Your task to perform on an android device: Open Google Chrome Image 0: 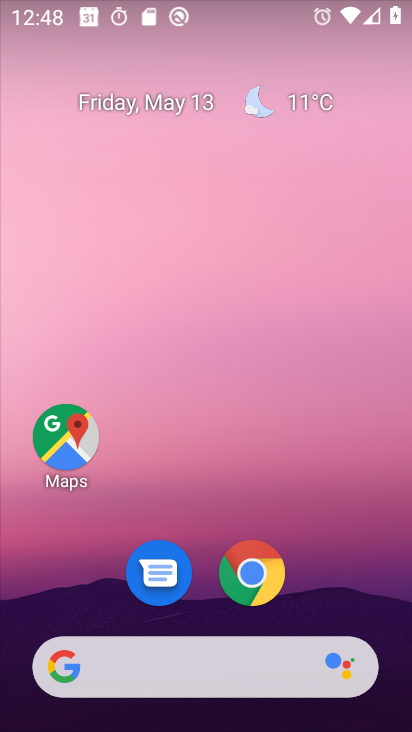
Step 0: click (258, 574)
Your task to perform on an android device: Open Google Chrome Image 1: 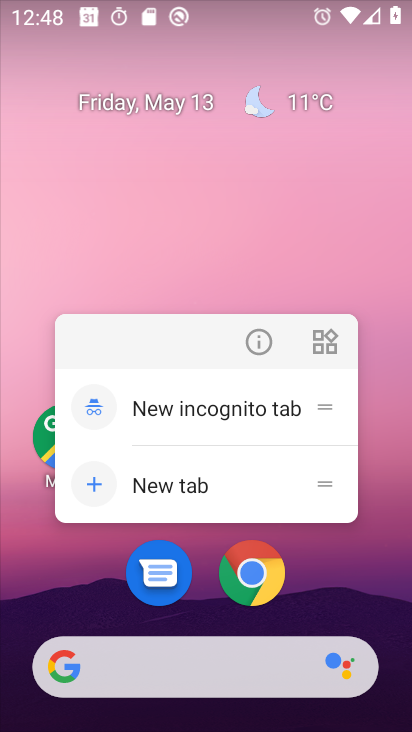
Step 1: click (258, 574)
Your task to perform on an android device: Open Google Chrome Image 2: 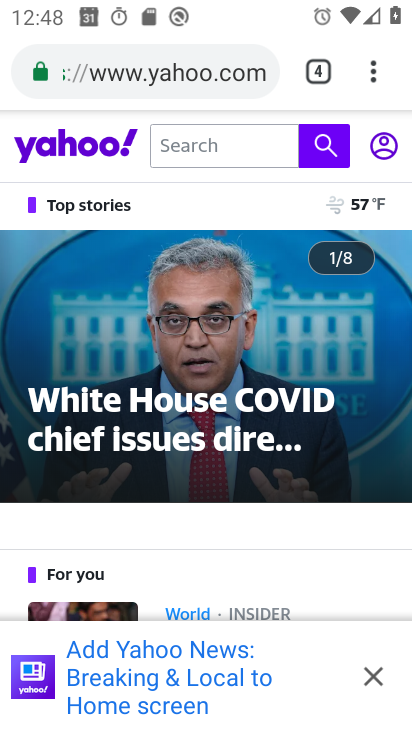
Step 2: task complete